Your task to perform on an android device: check the backup settings in the google photos Image 0: 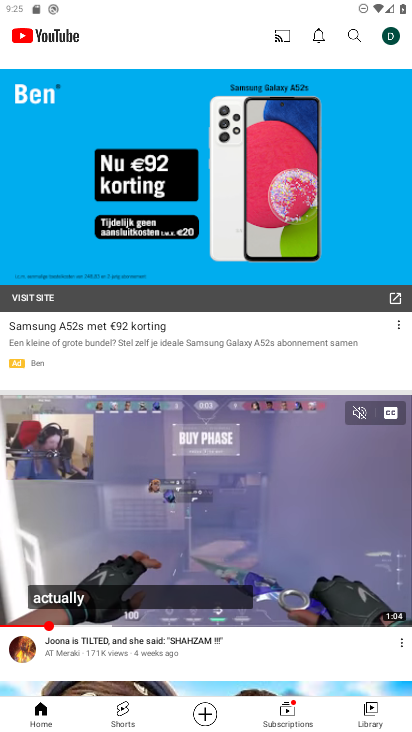
Step 0: press home button
Your task to perform on an android device: check the backup settings in the google photos Image 1: 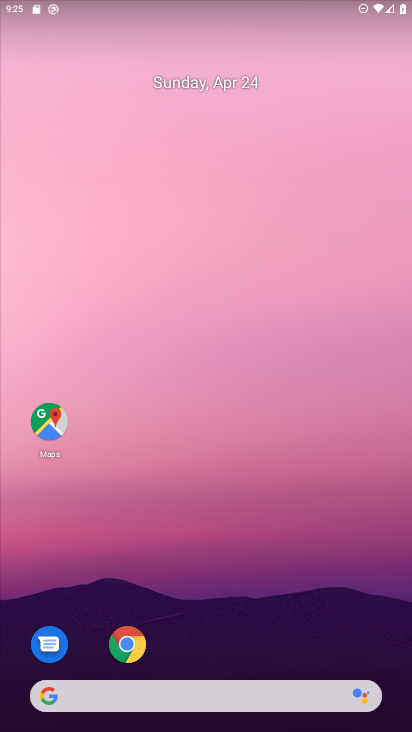
Step 1: drag from (229, 658) to (221, 4)
Your task to perform on an android device: check the backup settings in the google photos Image 2: 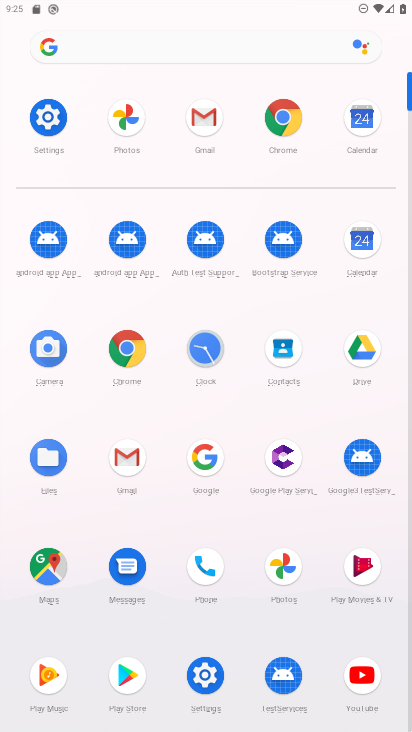
Step 2: click (285, 563)
Your task to perform on an android device: check the backup settings in the google photos Image 3: 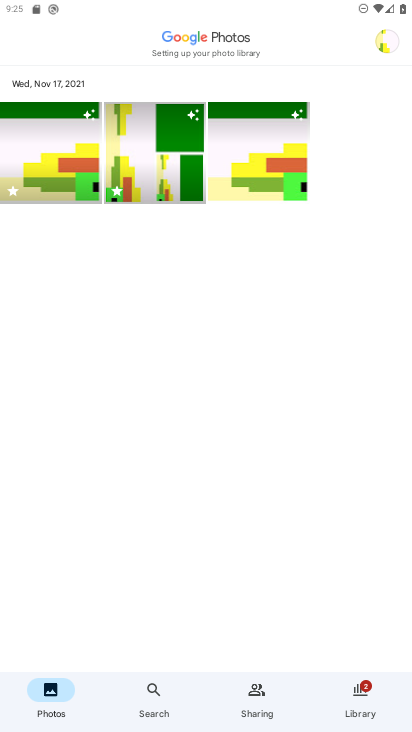
Step 3: click (382, 31)
Your task to perform on an android device: check the backup settings in the google photos Image 4: 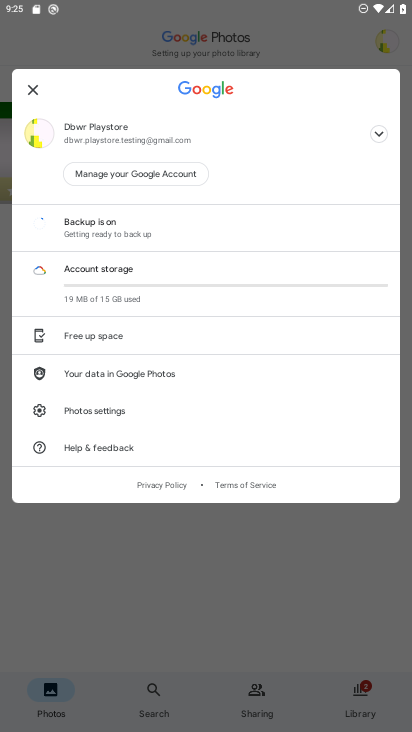
Step 4: click (115, 411)
Your task to perform on an android device: check the backup settings in the google photos Image 5: 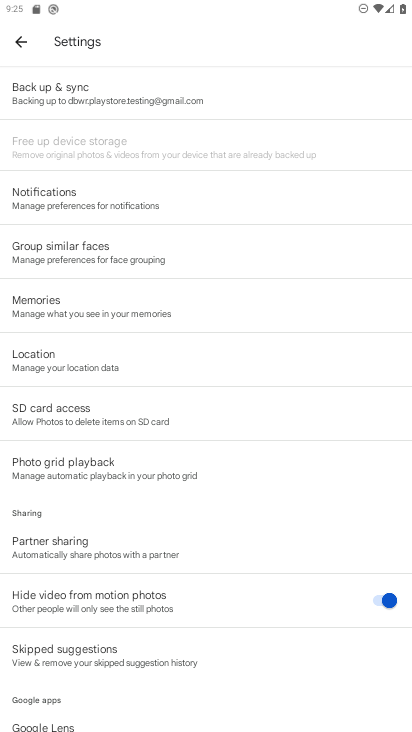
Step 5: click (71, 74)
Your task to perform on an android device: check the backup settings in the google photos Image 6: 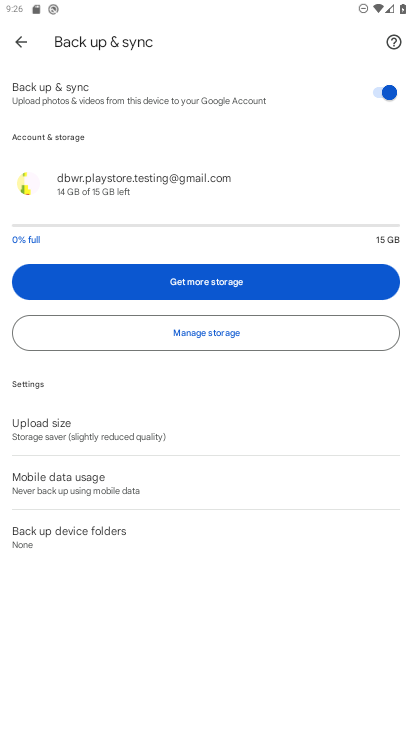
Step 6: task complete